Your task to perform on an android device: turn off picture-in-picture Image 0: 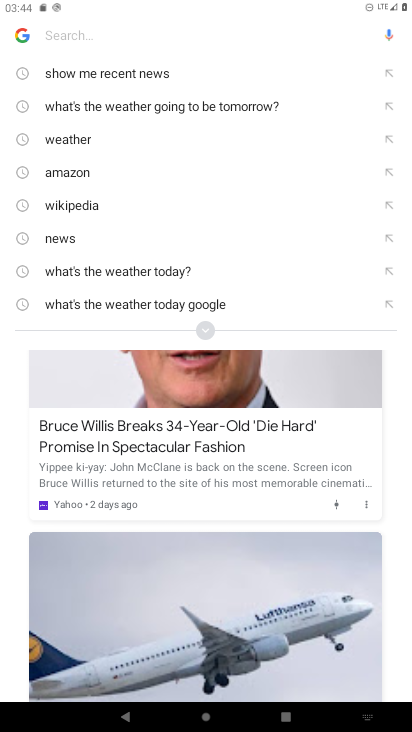
Step 0: press home button
Your task to perform on an android device: turn off picture-in-picture Image 1: 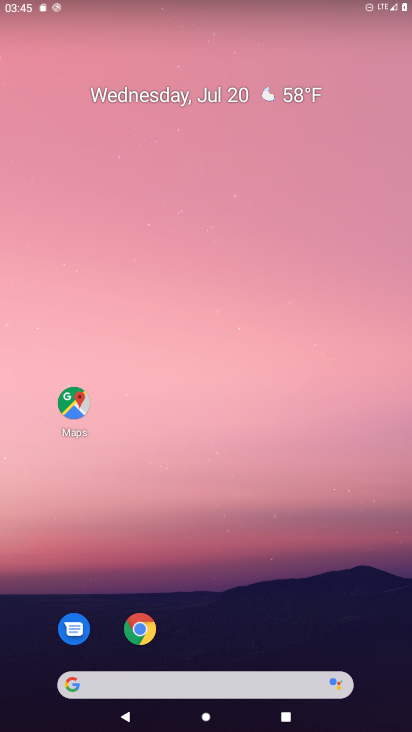
Step 1: drag from (281, 641) to (257, 337)
Your task to perform on an android device: turn off picture-in-picture Image 2: 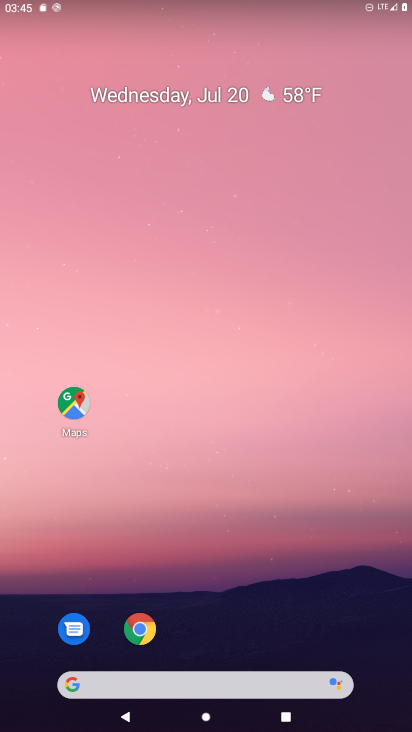
Step 2: click (126, 627)
Your task to perform on an android device: turn off picture-in-picture Image 3: 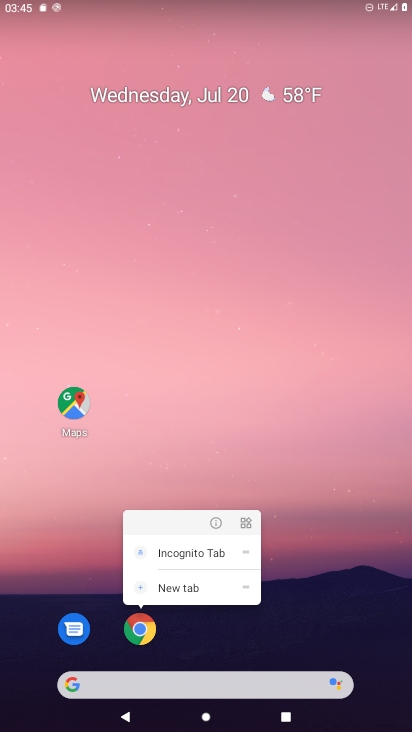
Step 3: click (217, 522)
Your task to perform on an android device: turn off picture-in-picture Image 4: 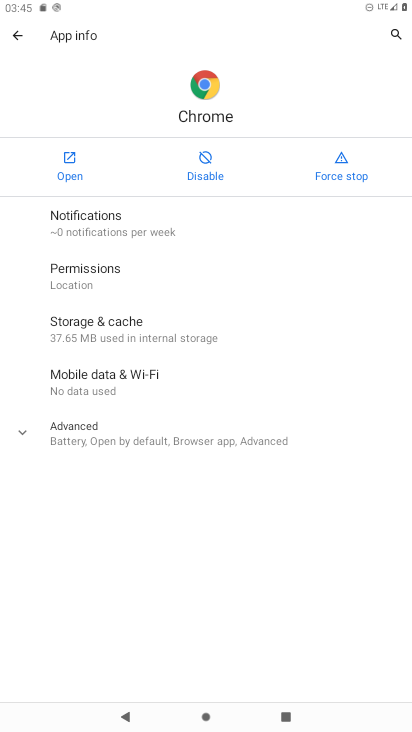
Step 4: click (90, 409)
Your task to perform on an android device: turn off picture-in-picture Image 5: 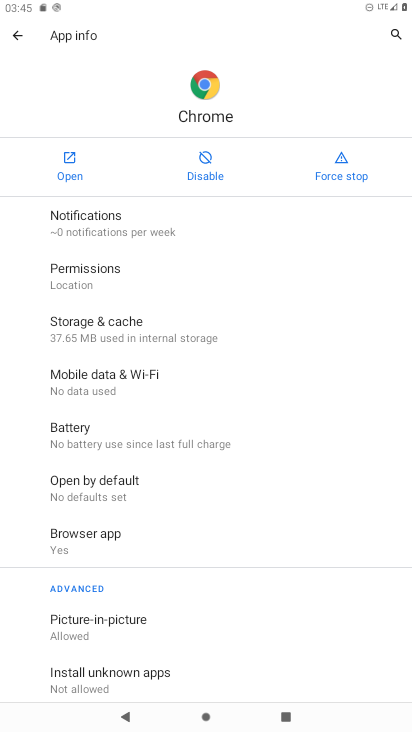
Step 5: click (88, 616)
Your task to perform on an android device: turn off picture-in-picture Image 6: 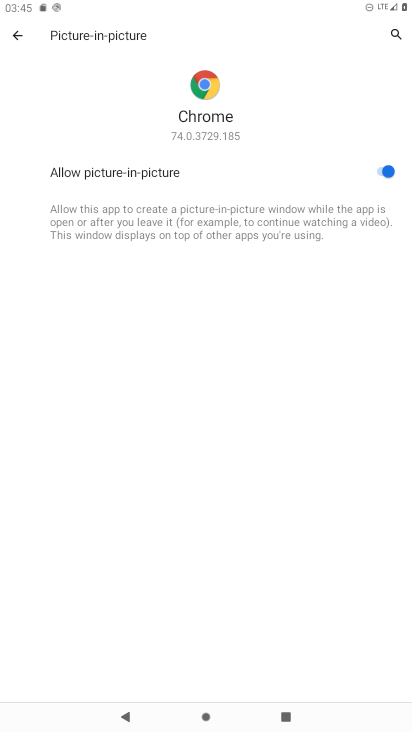
Step 6: click (312, 181)
Your task to perform on an android device: turn off picture-in-picture Image 7: 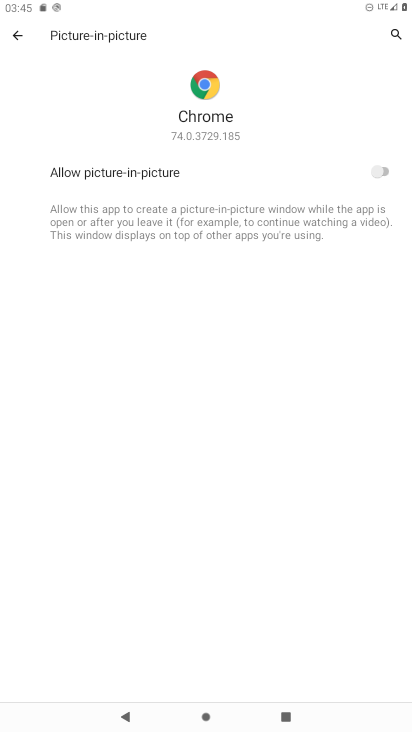
Step 7: task complete